Your task to perform on an android device: Open the Play Movies app and select the watchlist tab. Image 0: 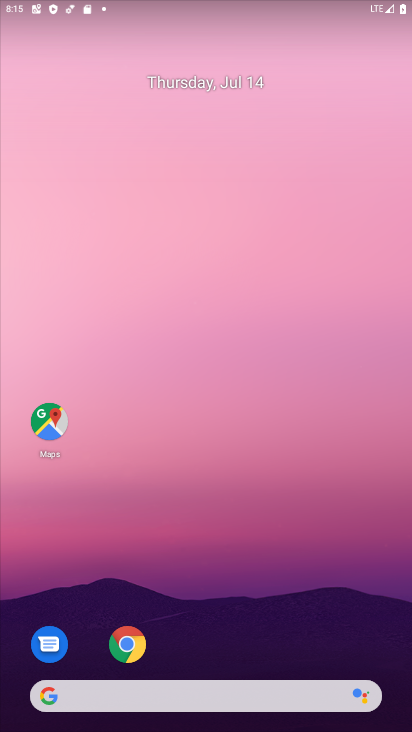
Step 0: drag from (180, 629) to (228, 7)
Your task to perform on an android device: Open the Play Movies app and select the watchlist tab. Image 1: 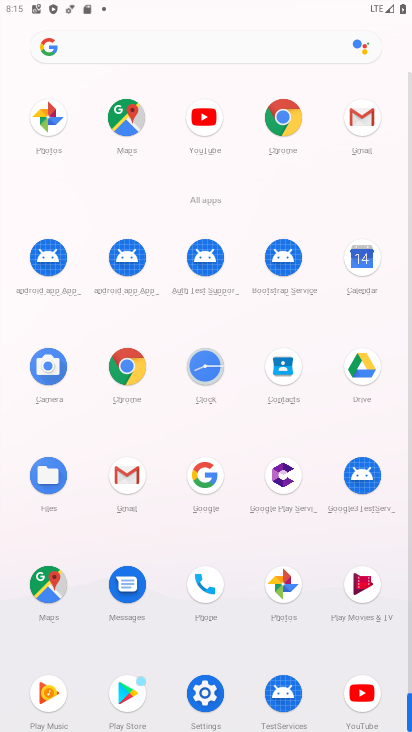
Step 1: drag from (168, 643) to (184, 336)
Your task to perform on an android device: Open the Play Movies app and select the watchlist tab. Image 2: 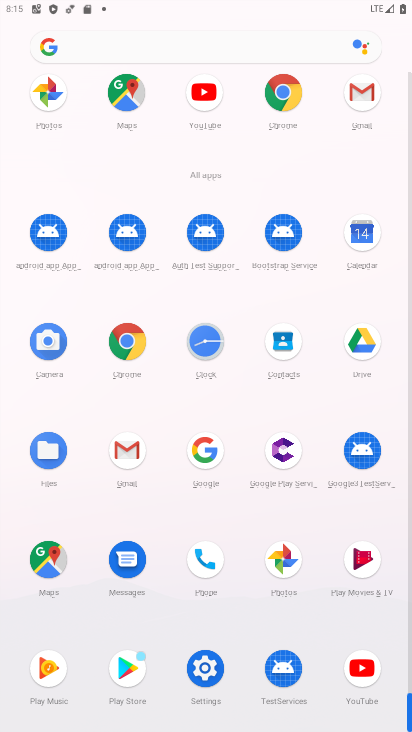
Step 2: drag from (193, 643) to (218, 400)
Your task to perform on an android device: Open the Play Movies app and select the watchlist tab. Image 3: 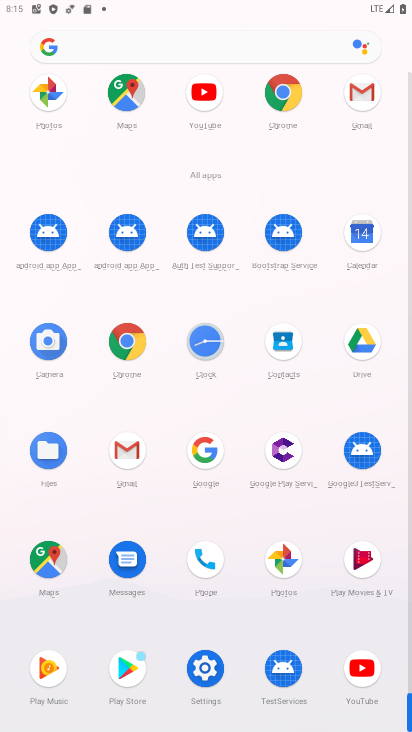
Step 3: drag from (155, 589) to (193, 385)
Your task to perform on an android device: Open the Play Movies app and select the watchlist tab. Image 4: 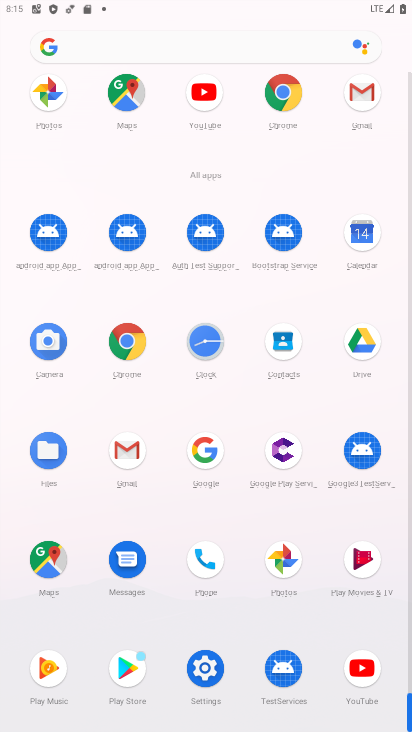
Step 4: drag from (169, 640) to (200, 440)
Your task to perform on an android device: Open the Play Movies app and select the watchlist tab. Image 5: 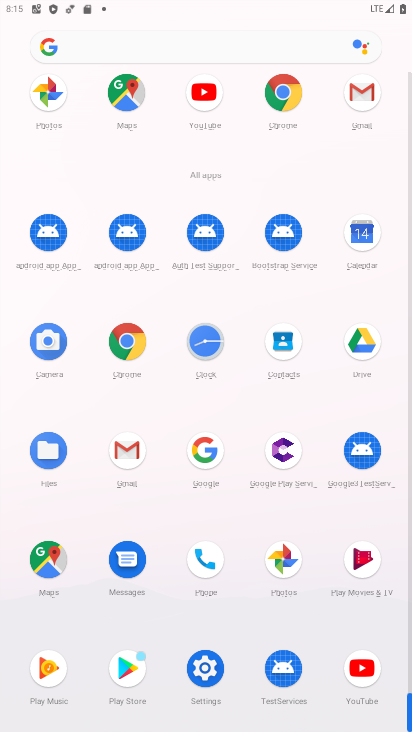
Step 5: drag from (182, 598) to (182, 405)
Your task to perform on an android device: Open the Play Movies app and select the watchlist tab. Image 6: 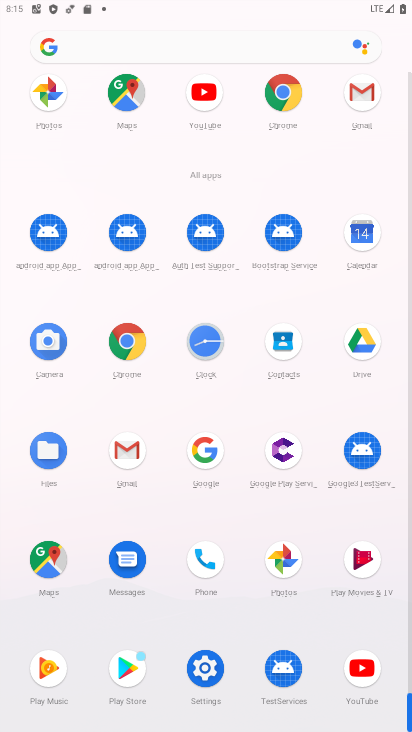
Step 6: drag from (178, 658) to (227, 388)
Your task to perform on an android device: Open the Play Movies app and select the watchlist tab. Image 7: 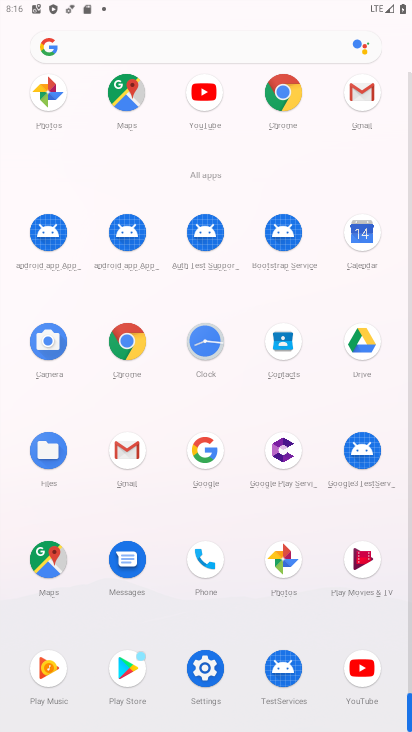
Step 7: drag from (171, 634) to (209, 301)
Your task to perform on an android device: Open the Play Movies app and select the watchlist tab. Image 8: 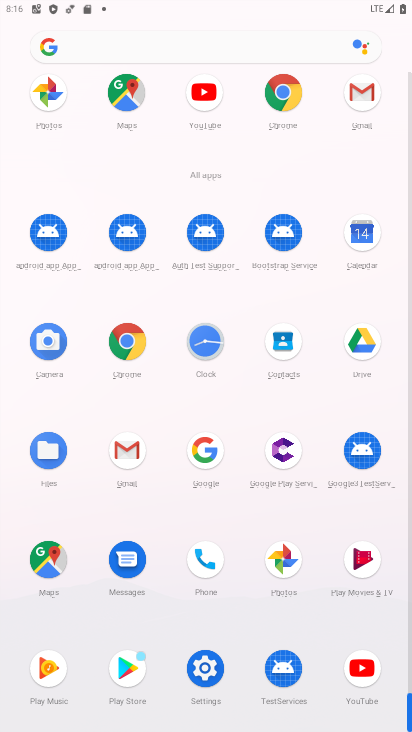
Step 8: click (365, 556)
Your task to perform on an android device: Open the Play Movies app and select the watchlist tab. Image 9: 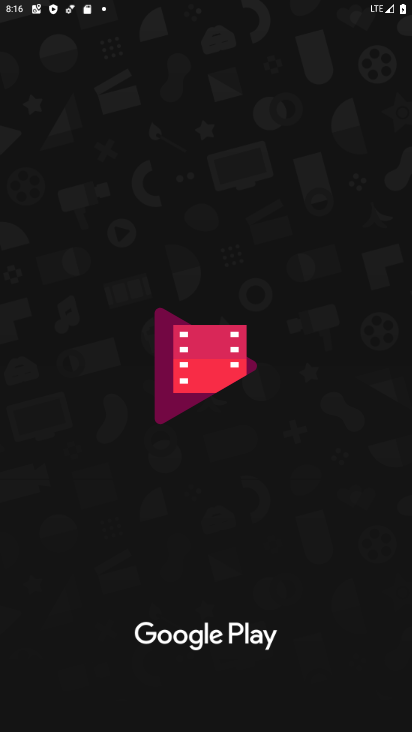
Step 9: drag from (280, 645) to (284, 361)
Your task to perform on an android device: Open the Play Movies app and select the watchlist tab. Image 10: 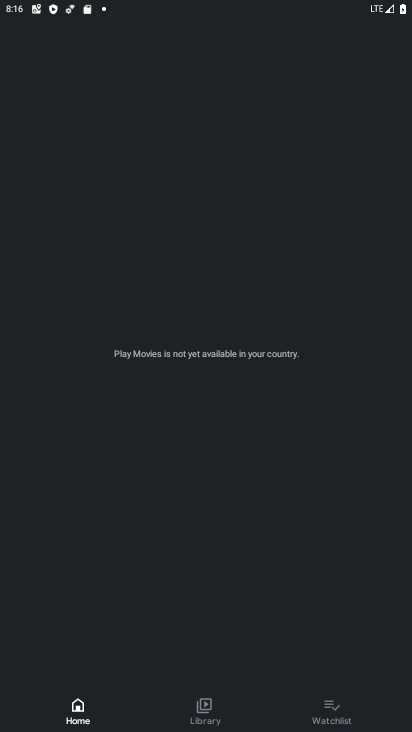
Step 10: click (216, 373)
Your task to perform on an android device: Open the Play Movies app and select the watchlist tab. Image 11: 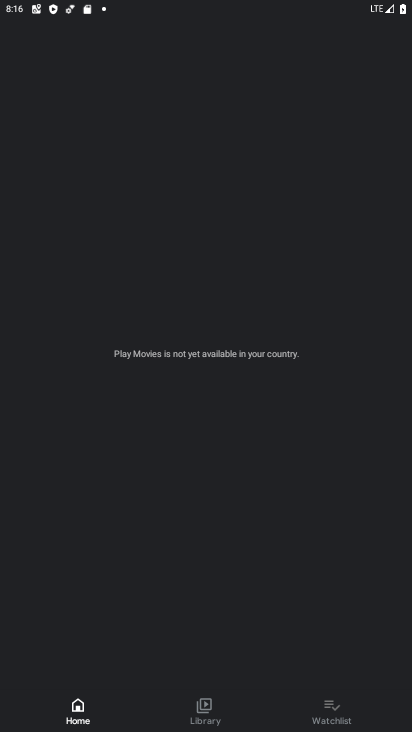
Step 11: click (217, 374)
Your task to perform on an android device: Open the Play Movies app and select the watchlist tab. Image 12: 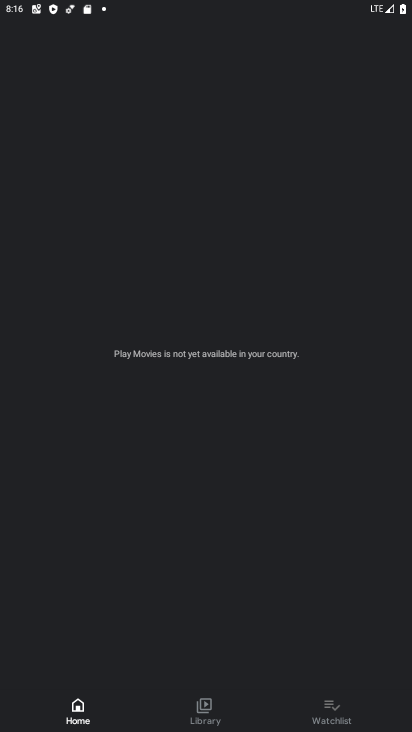
Step 12: click (332, 709)
Your task to perform on an android device: Open the Play Movies app and select the watchlist tab. Image 13: 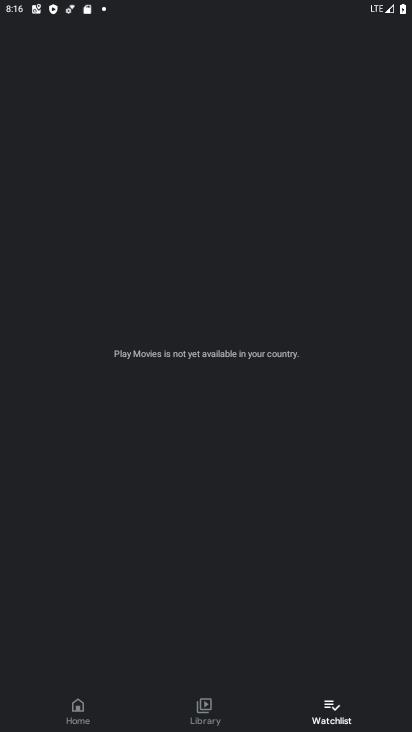
Step 13: task complete